Your task to perform on an android device: check android version Image 0: 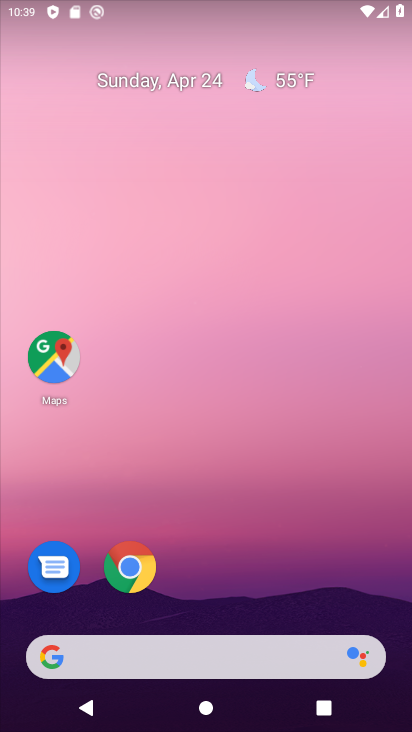
Step 0: drag from (391, 640) to (373, 192)
Your task to perform on an android device: check android version Image 1: 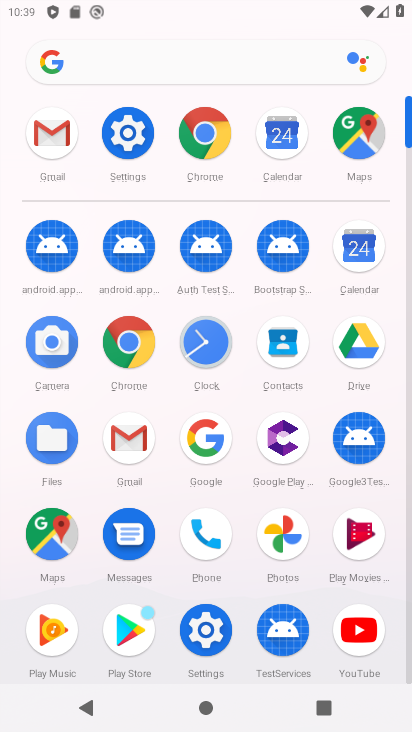
Step 1: click (133, 141)
Your task to perform on an android device: check android version Image 2: 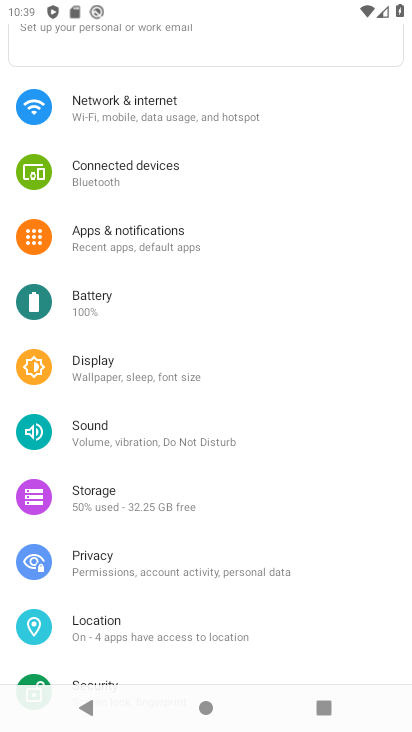
Step 2: drag from (352, 651) to (361, 252)
Your task to perform on an android device: check android version Image 3: 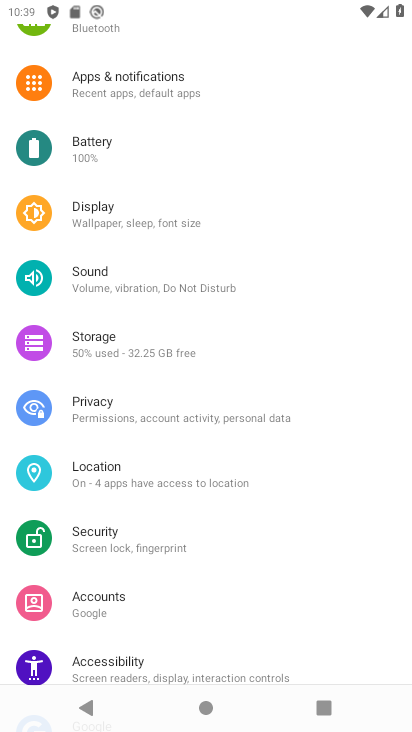
Step 3: drag from (374, 641) to (390, 190)
Your task to perform on an android device: check android version Image 4: 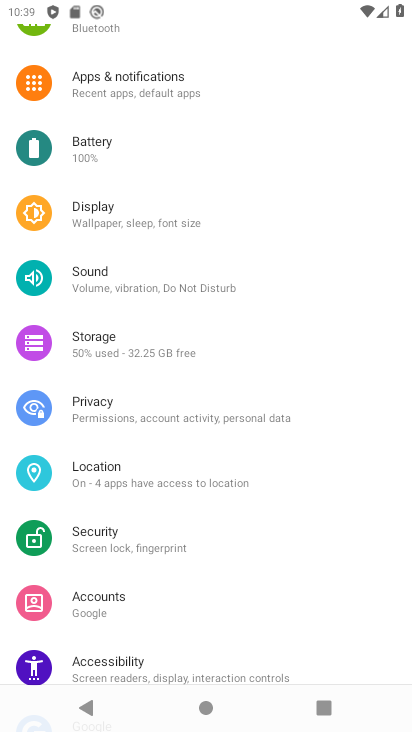
Step 4: drag from (360, 533) to (355, 194)
Your task to perform on an android device: check android version Image 5: 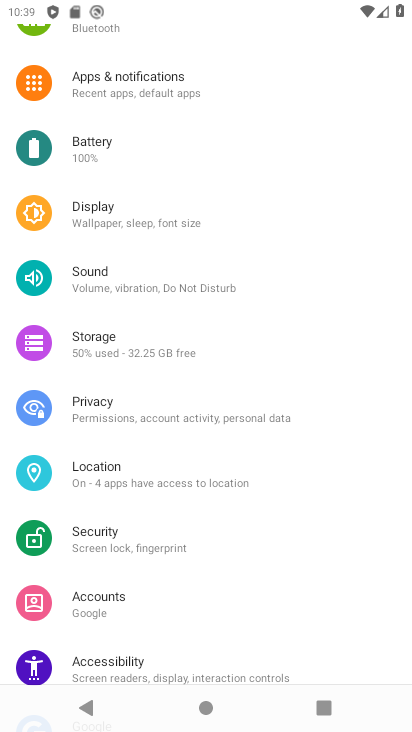
Step 5: drag from (338, 481) to (323, 210)
Your task to perform on an android device: check android version Image 6: 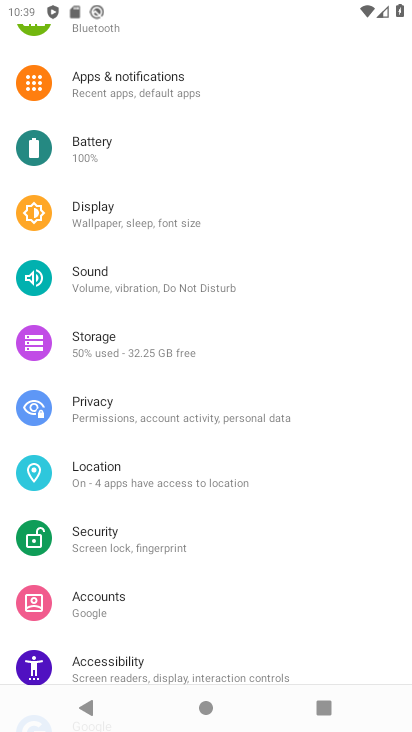
Step 6: drag from (350, 627) to (347, 361)
Your task to perform on an android device: check android version Image 7: 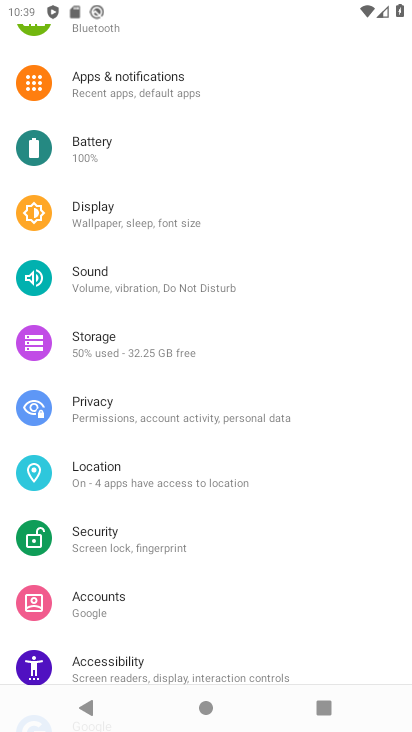
Step 7: drag from (373, 629) to (390, 341)
Your task to perform on an android device: check android version Image 8: 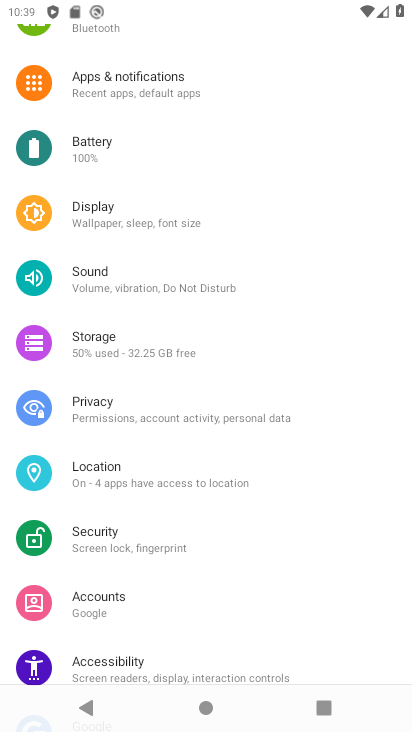
Step 8: drag from (343, 490) to (344, 292)
Your task to perform on an android device: check android version Image 9: 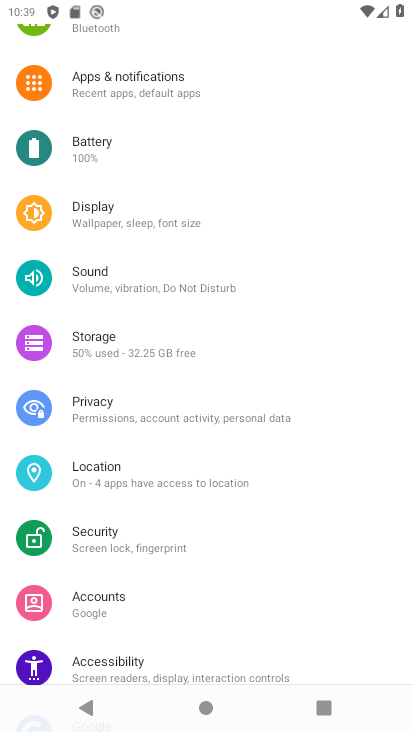
Step 9: drag from (371, 421) to (374, 367)
Your task to perform on an android device: check android version Image 10: 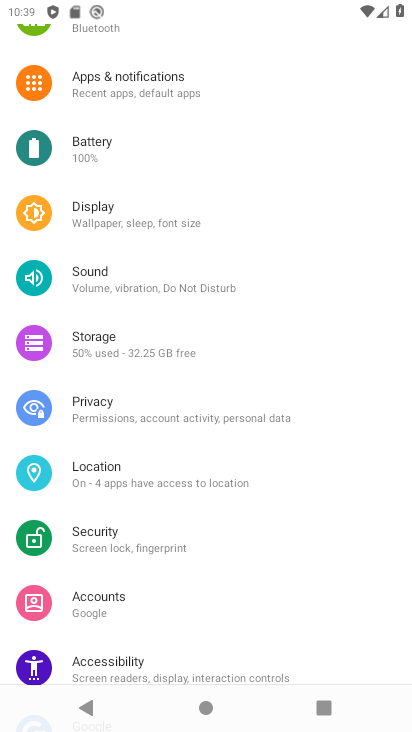
Step 10: drag from (370, 437) to (386, 265)
Your task to perform on an android device: check android version Image 11: 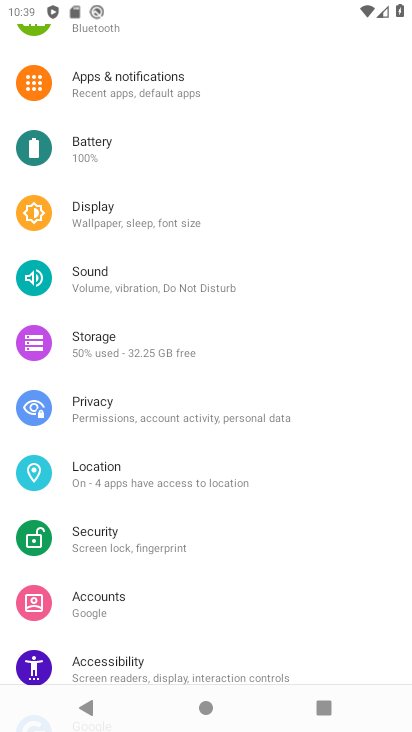
Step 11: drag from (361, 468) to (355, 116)
Your task to perform on an android device: check android version Image 12: 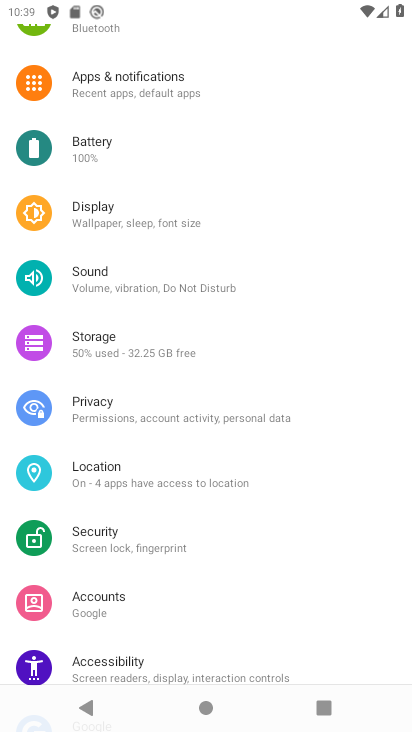
Step 12: drag from (354, 391) to (355, 327)
Your task to perform on an android device: check android version Image 13: 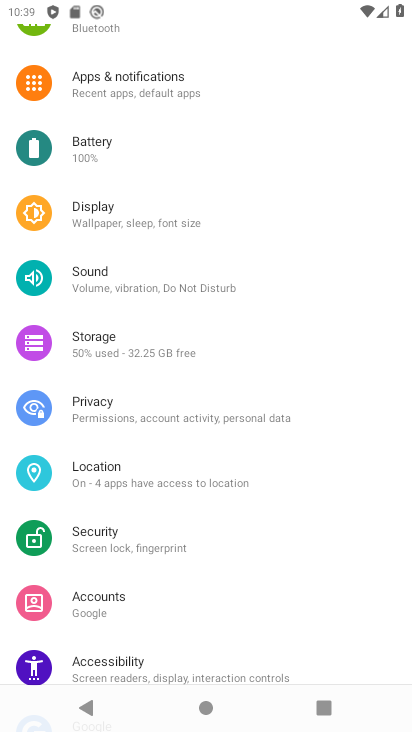
Step 13: drag from (360, 571) to (368, 261)
Your task to perform on an android device: check android version Image 14: 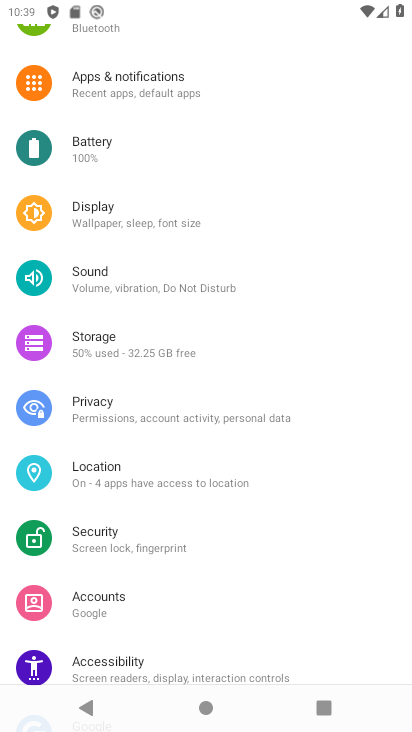
Step 14: drag from (343, 663) to (367, 344)
Your task to perform on an android device: check android version Image 15: 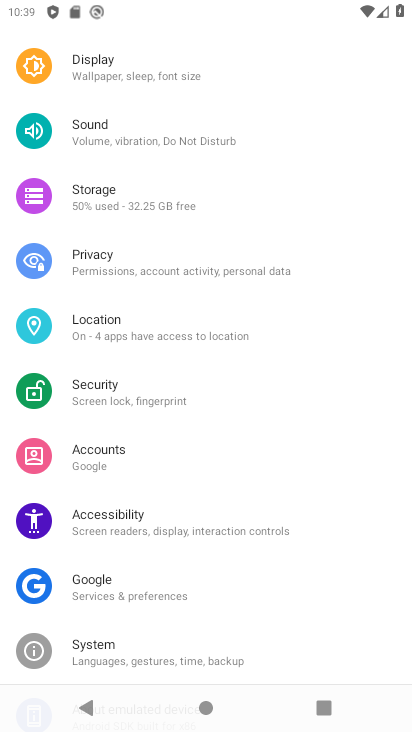
Step 15: drag from (375, 659) to (395, 175)
Your task to perform on an android device: check android version Image 16: 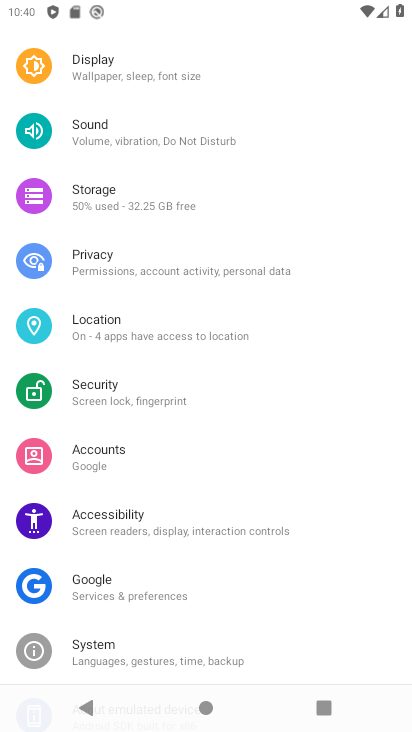
Step 16: drag from (349, 629) to (354, 178)
Your task to perform on an android device: check android version Image 17: 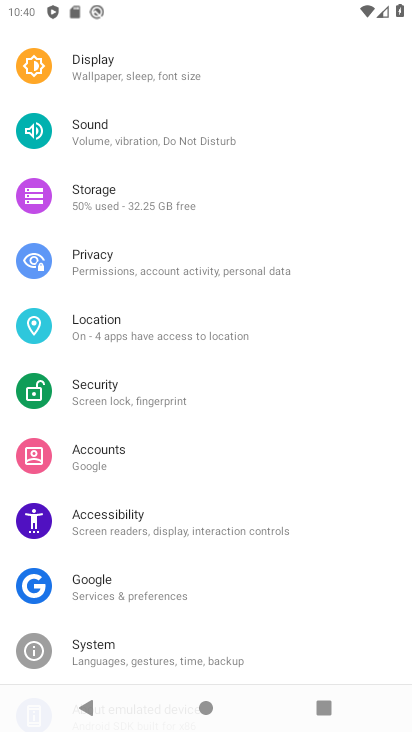
Step 17: drag from (329, 609) to (342, 236)
Your task to perform on an android device: check android version Image 18: 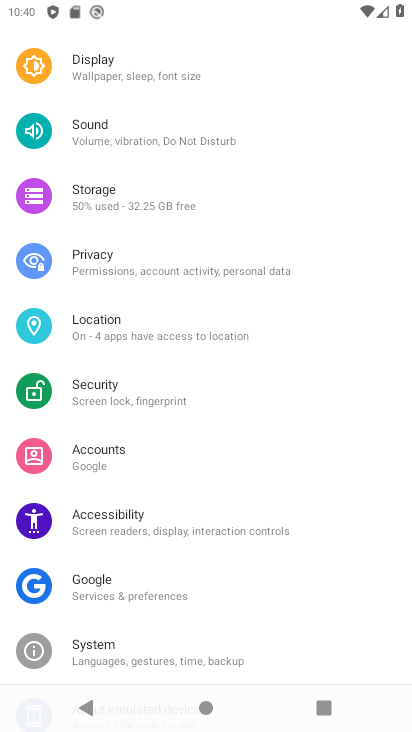
Step 18: drag from (369, 629) to (368, 234)
Your task to perform on an android device: check android version Image 19: 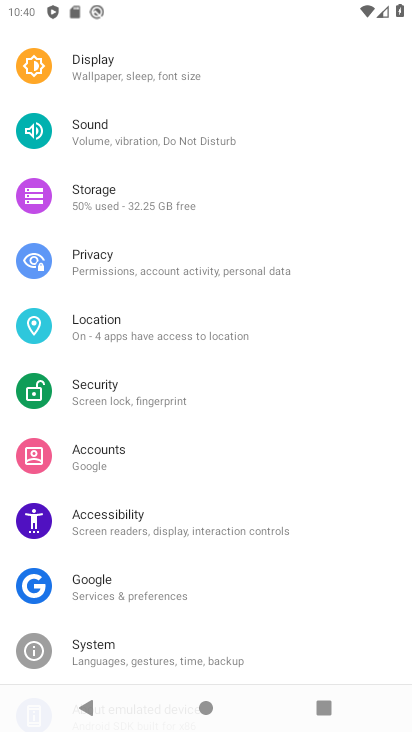
Step 19: drag from (379, 407) to (379, 232)
Your task to perform on an android device: check android version Image 20: 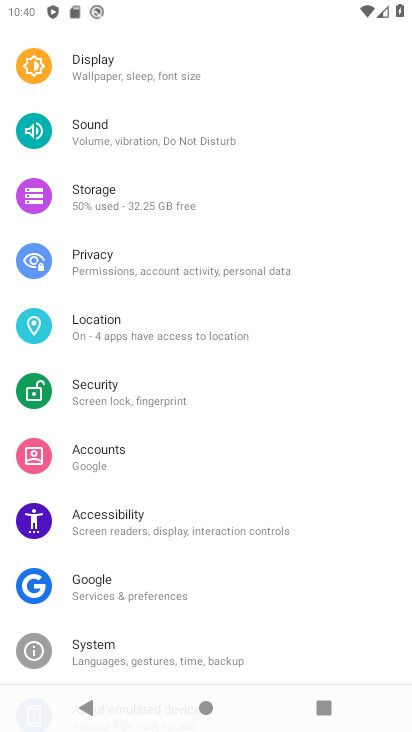
Step 20: drag from (364, 636) to (359, 242)
Your task to perform on an android device: check android version Image 21: 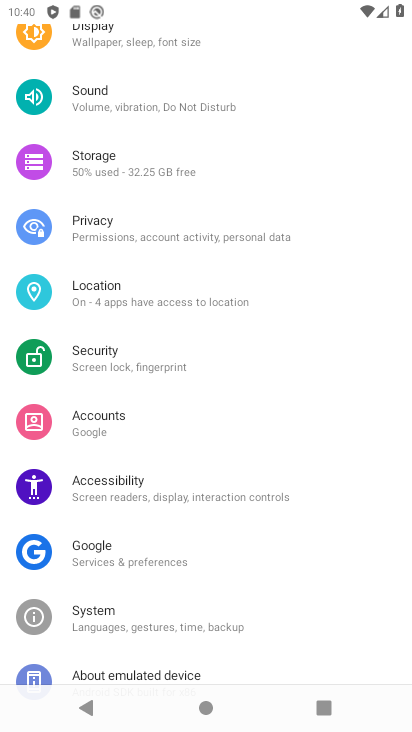
Step 21: click (130, 664)
Your task to perform on an android device: check android version Image 22: 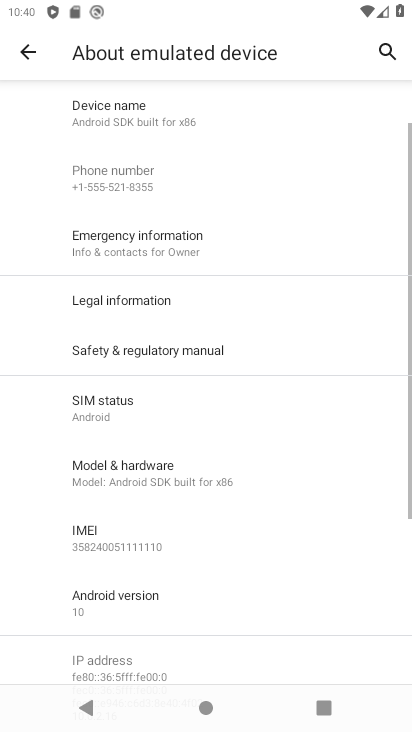
Step 22: click (107, 604)
Your task to perform on an android device: check android version Image 23: 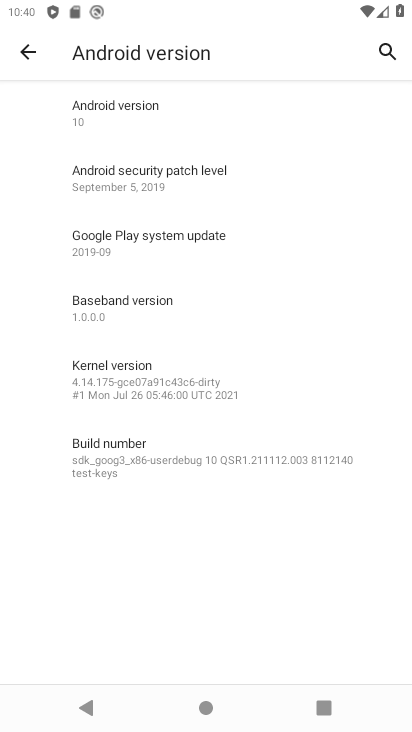
Step 23: click (110, 112)
Your task to perform on an android device: check android version Image 24: 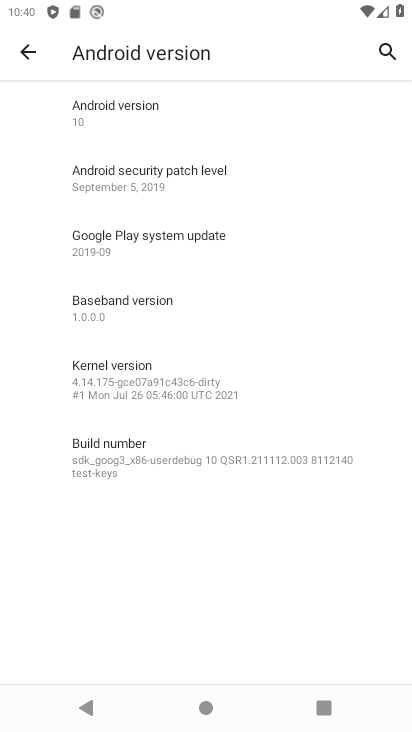
Step 24: task complete